Your task to perform on an android device: Go to accessibility settings Image 0: 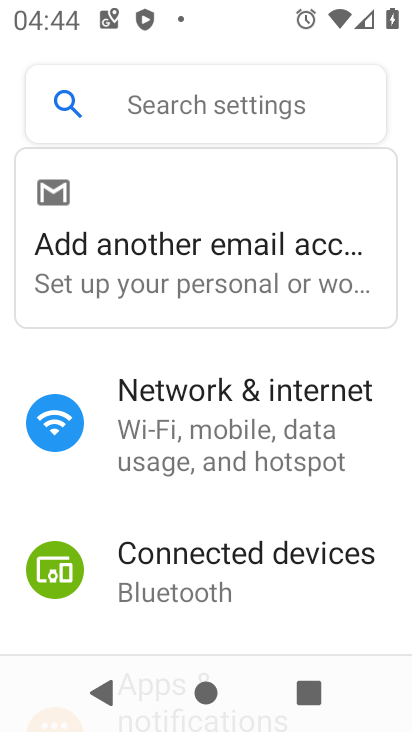
Step 0: drag from (196, 553) to (231, 51)
Your task to perform on an android device: Go to accessibility settings Image 1: 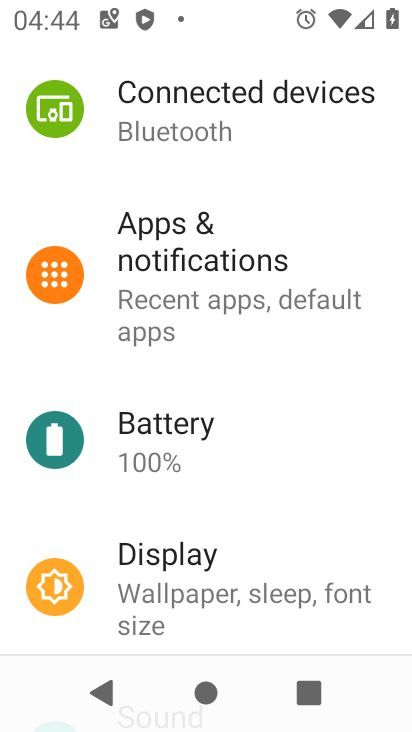
Step 1: drag from (205, 499) to (298, 89)
Your task to perform on an android device: Go to accessibility settings Image 2: 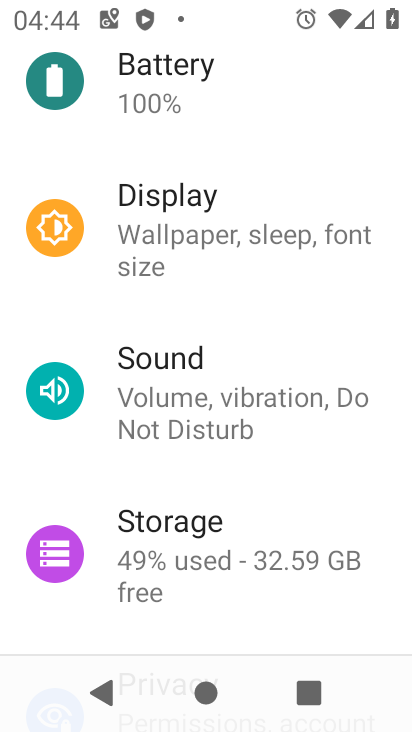
Step 2: drag from (248, 557) to (293, 148)
Your task to perform on an android device: Go to accessibility settings Image 3: 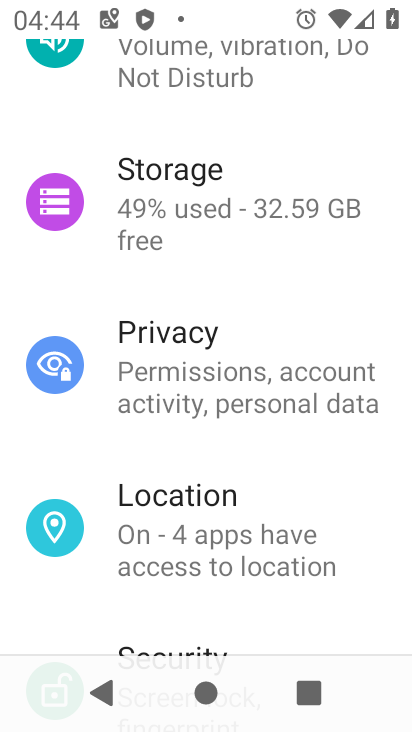
Step 3: drag from (229, 601) to (278, 280)
Your task to perform on an android device: Go to accessibility settings Image 4: 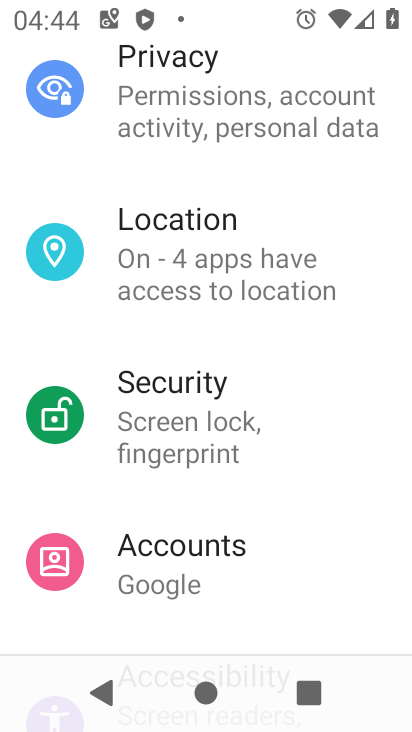
Step 4: drag from (219, 542) to (347, 0)
Your task to perform on an android device: Go to accessibility settings Image 5: 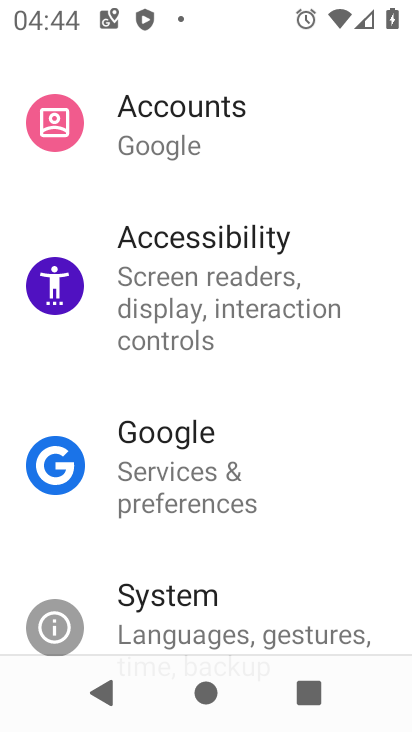
Step 5: click (209, 252)
Your task to perform on an android device: Go to accessibility settings Image 6: 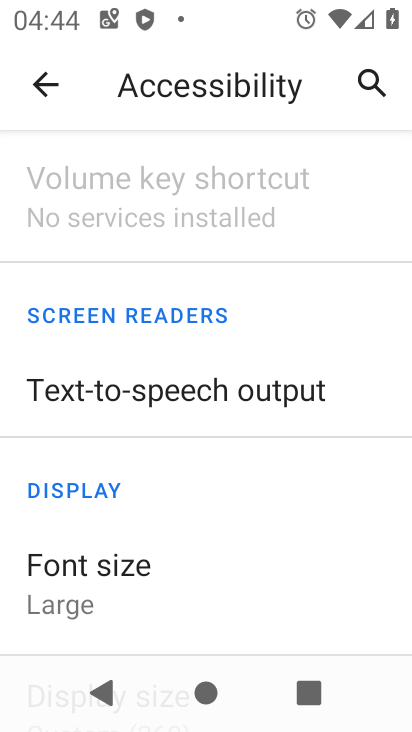
Step 6: task complete